Your task to perform on an android device: empty trash in the gmail app Image 0: 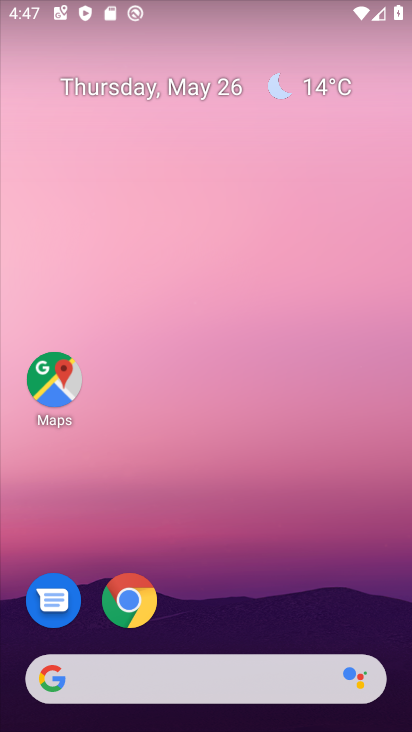
Step 0: drag from (206, 636) to (239, 173)
Your task to perform on an android device: empty trash in the gmail app Image 1: 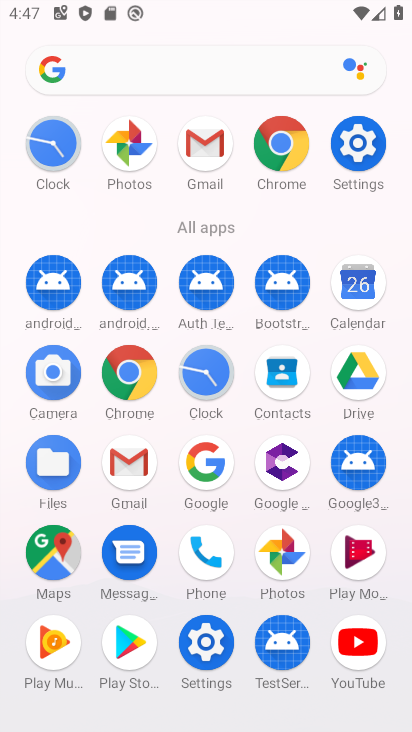
Step 1: click (122, 456)
Your task to perform on an android device: empty trash in the gmail app Image 2: 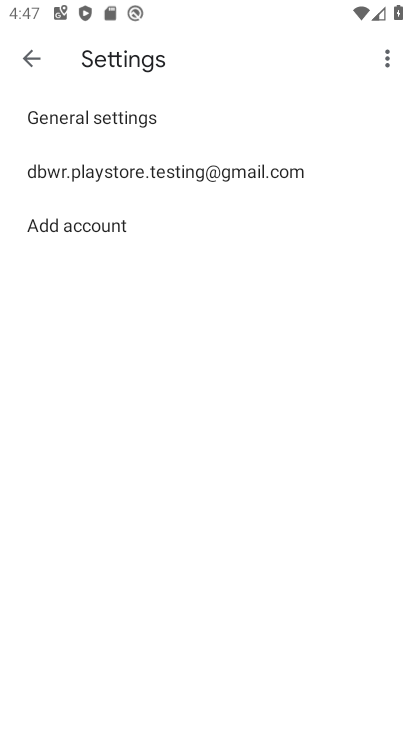
Step 2: click (45, 73)
Your task to perform on an android device: empty trash in the gmail app Image 3: 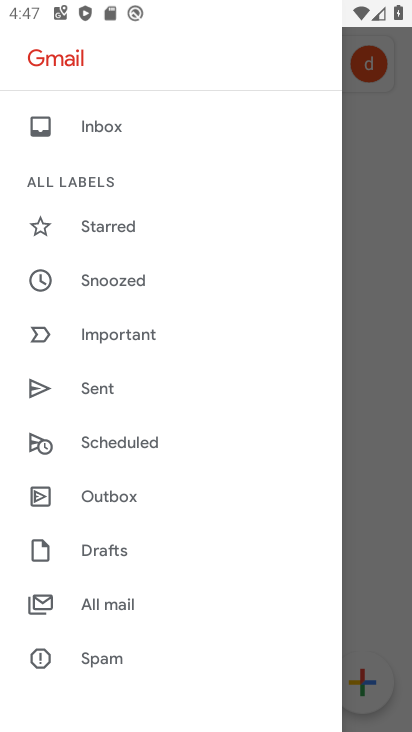
Step 3: drag from (61, 670) to (190, 96)
Your task to perform on an android device: empty trash in the gmail app Image 4: 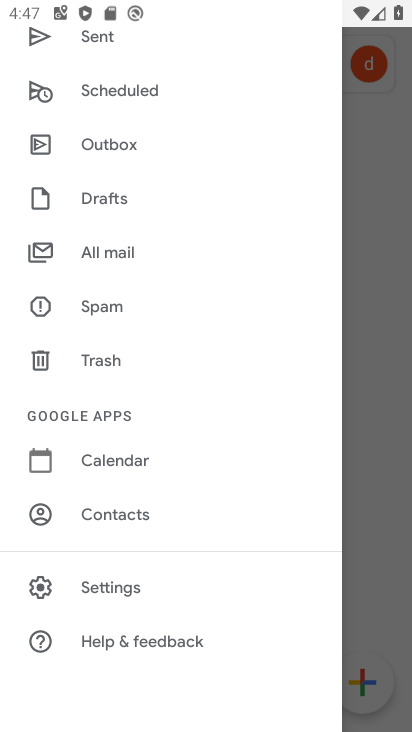
Step 4: click (107, 645)
Your task to perform on an android device: empty trash in the gmail app Image 5: 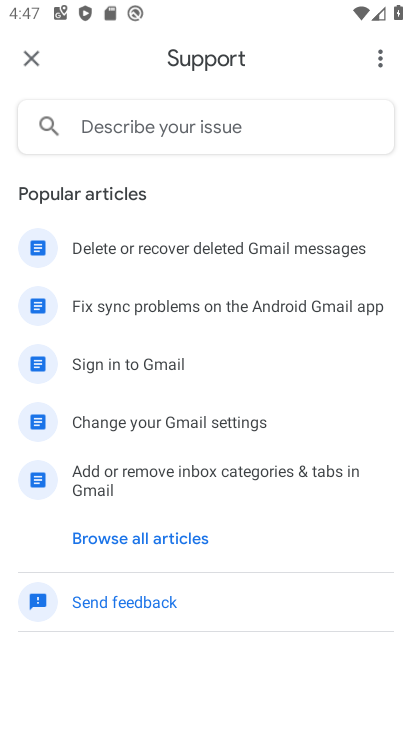
Step 5: click (27, 53)
Your task to perform on an android device: empty trash in the gmail app Image 6: 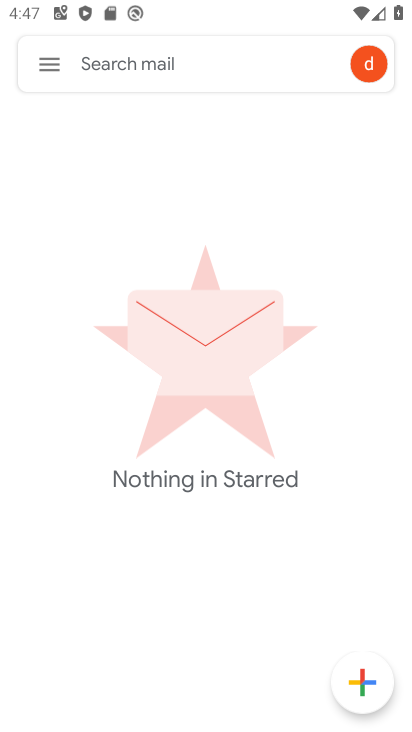
Step 6: click (39, 67)
Your task to perform on an android device: empty trash in the gmail app Image 7: 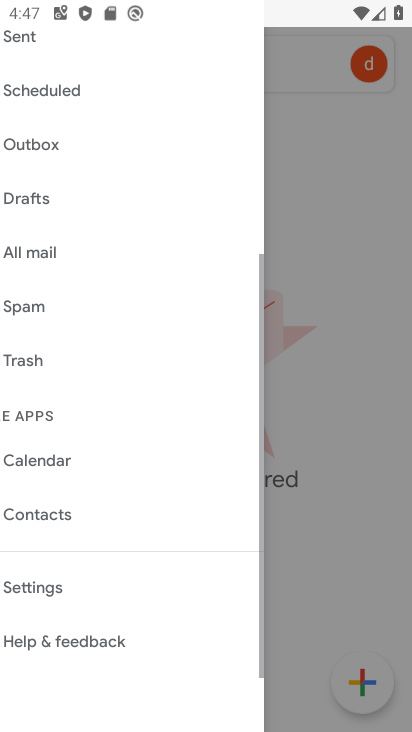
Step 7: click (45, 69)
Your task to perform on an android device: empty trash in the gmail app Image 8: 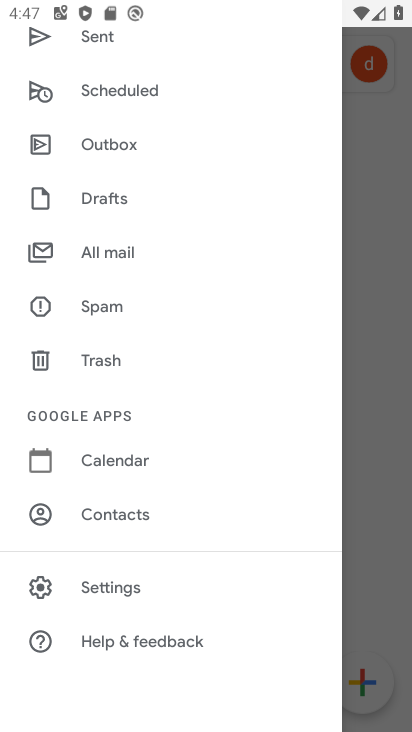
Step 8: drag from (137, 249) to (81, 526)
Your task to perform on an android device: empty trash in the gmail app Image 9: 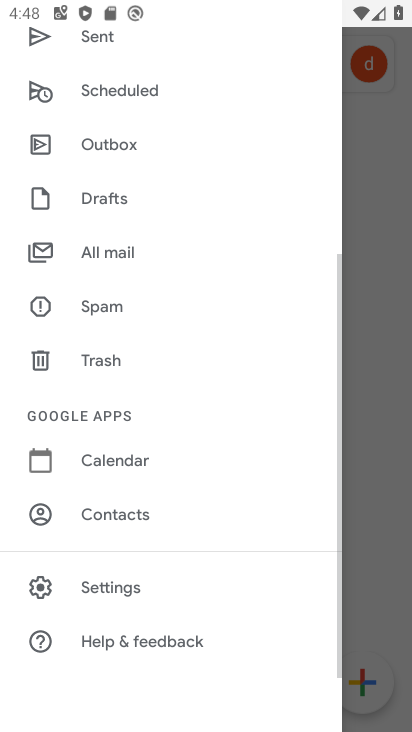
Step 9: click (107, 365)
Your task to perform on an android device: empty trash in the gmail app Image 10: 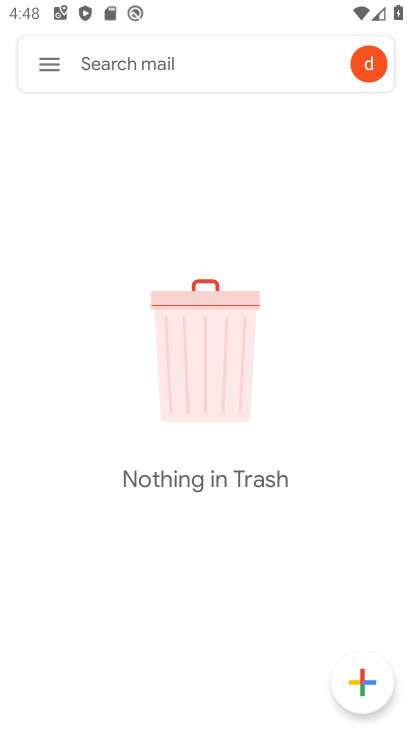
Step 10: task complete